Your task to perform on an android device: Open the map Image 0: 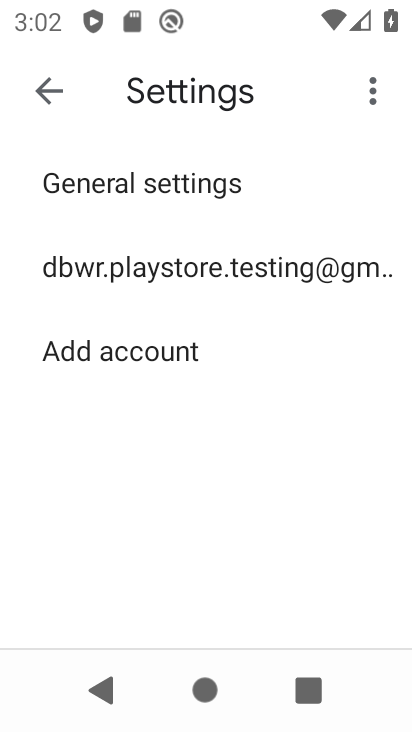
Step 0: press home button
Your task to perform on an android device: Open the map Image 1: 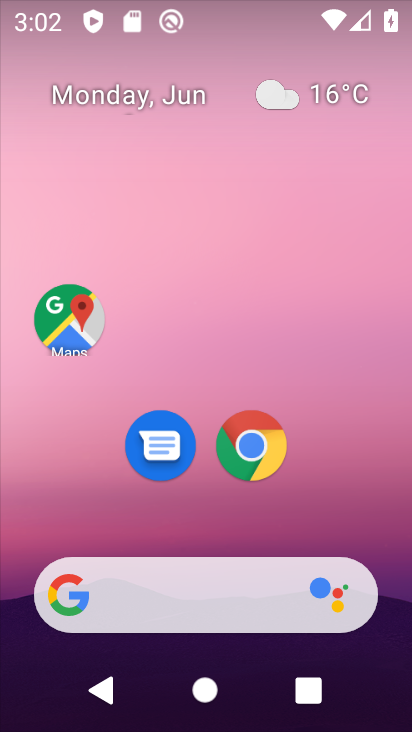
Step 1: click (50, 321)
Your task to perform on an android device: Open the map Image 2: 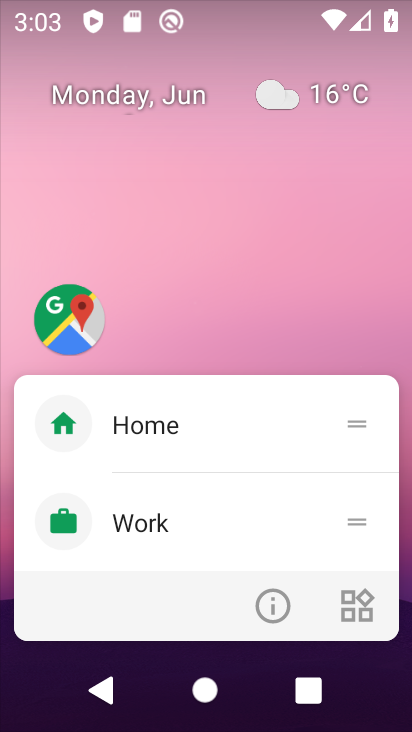
Step 2: click (76, 306)
Your task to perform on an android device: Open the map Image 3: 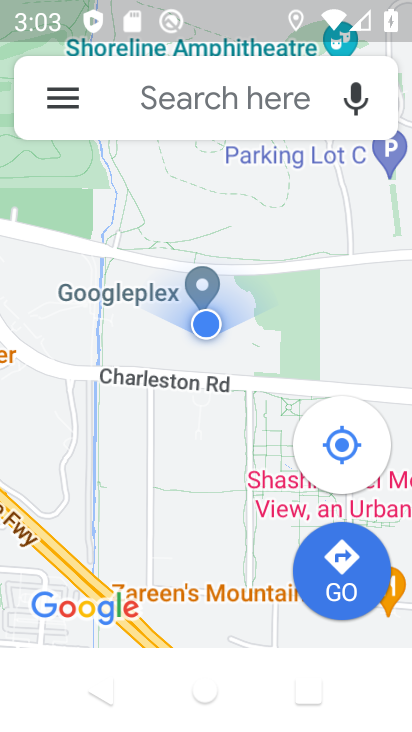
Step 3: task complete